Your task to perform on an android device: Find coffee shops on Maps Image 0: 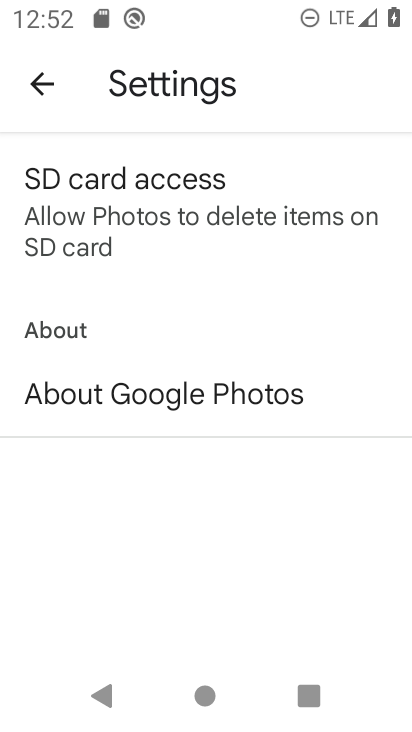
Step 0: press home button
Your task to perform on an android device: Find coffee shops on Maps Image 1: 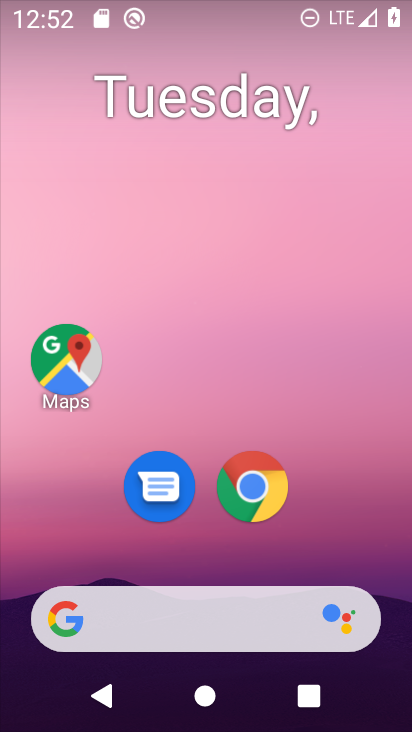
Step 1: drag from (214, 567) to (278, 114)
Your task to perform on an android device: Find coffee shops on Maps Image 2: 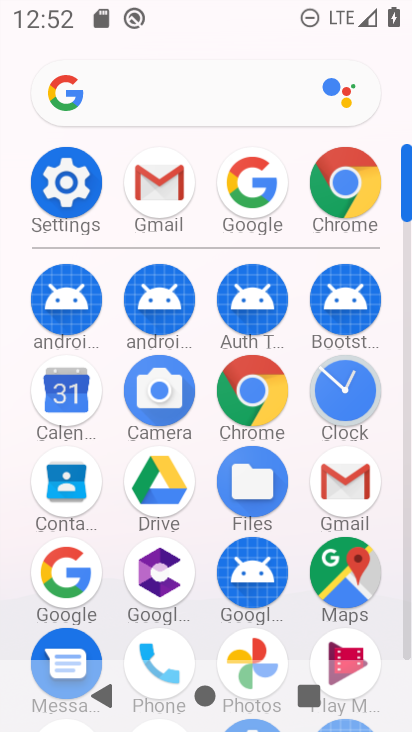
Step 2: drag from (213, 252) to (218, 66)
Your task to perform on an android device: Find coffee shops on Maps Image 3: 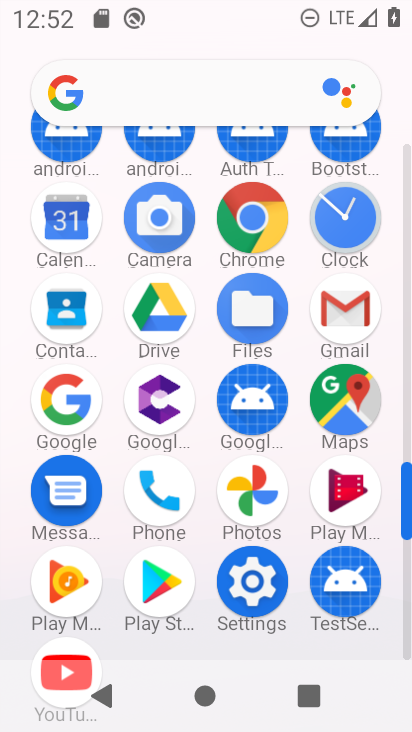
Step 3: click (325, 413)
Your task to perform on an android device: Find coffee shops on Maps Image 4: 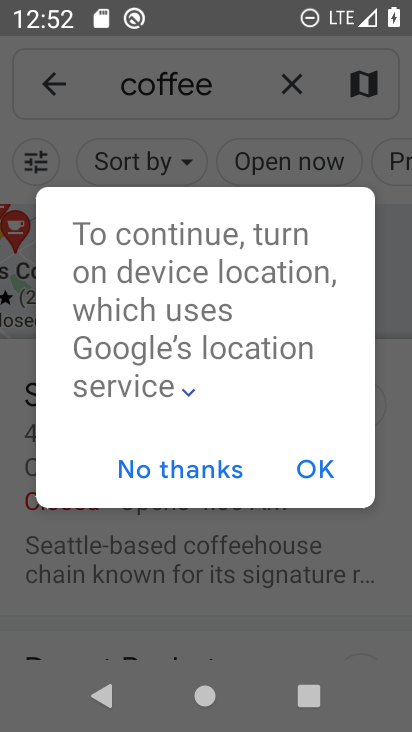
Step 4: click (322, 462)
Your task to perform on an android device: Find coffee shops on Maps Image 5: 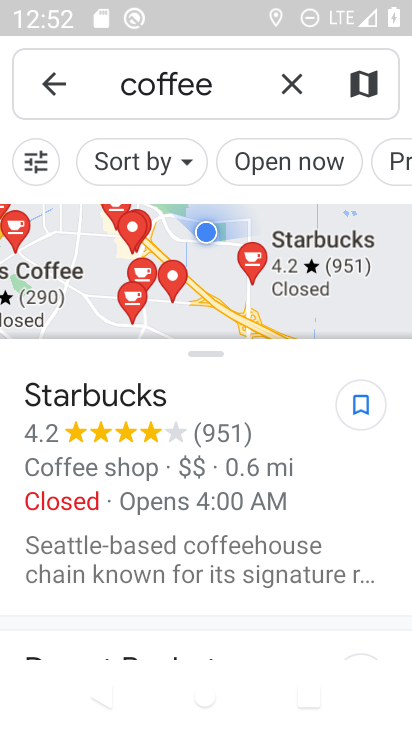
Step 5: click (224, 97)
Your task to perform on an android device: Find coffee shops on Maps Image 6: 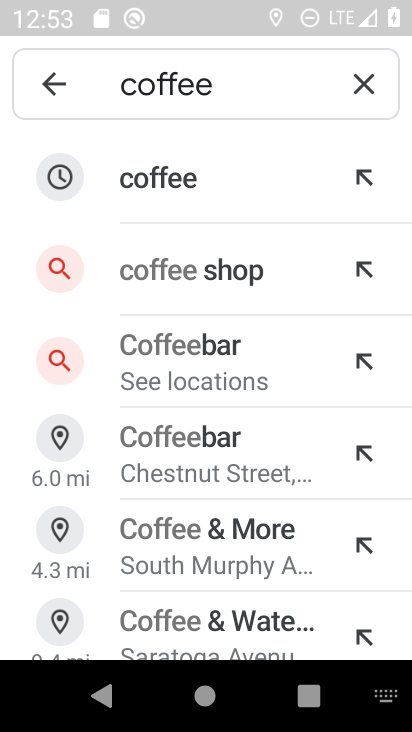
Step 6: click (197, 298)
Your task to perform on an android device: Find coffee shops on Maps Image 7: 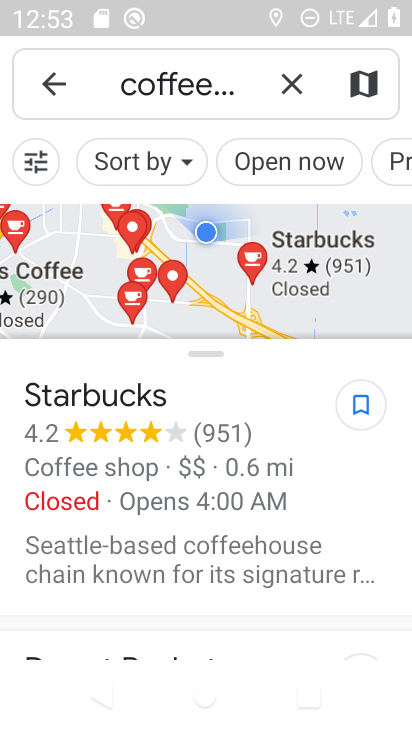
Step 7: task complete